Your task to perform on an android device: Search for sushi restaurants on Maps Image 0: 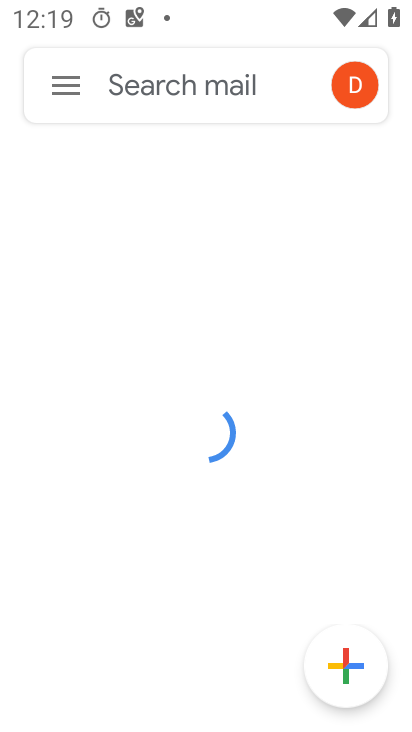
Step 0: press home button
Your task to perform on an android device: Search for sushi restaurants on Maps Image 1: 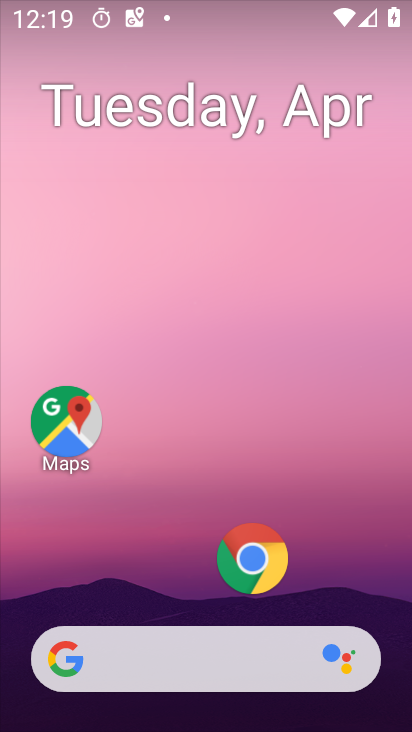
Step 1: drag from (151, 612) to (153, 149)
Your task to perform on an android device: Search for sushi restaurants on Maps Image 2: 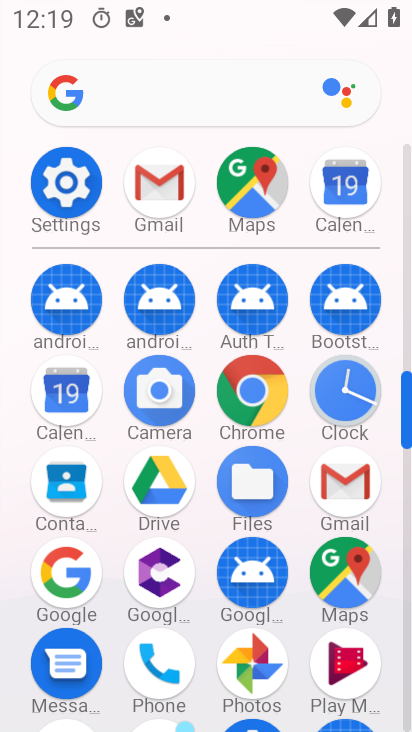
Step 2: drag from (198, 669) to (198, 318)
Your task to perform on an android device: Search for sushi restaurants on Maps Image 3: 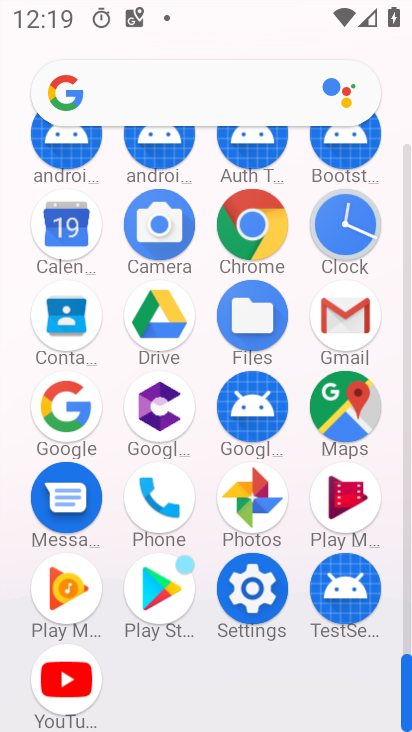
Step 3: click (333, 402)
Your task to perform on an android device: Search for sushi restaurants on Maps Image 4: 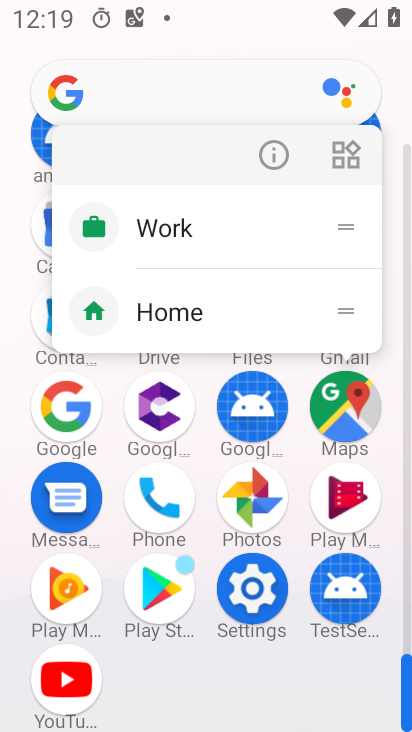
Step 4: click (356, 404)
Your task to perform on an android device: Search for sushi restaurants on Maps Image 5: 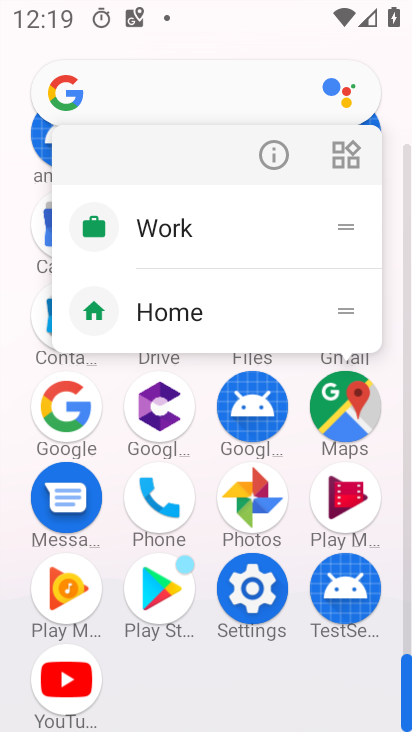
Step 5: click (197, 108)
Your task to perform on an android device: Search for sushi restaurants on Maps Image 6: 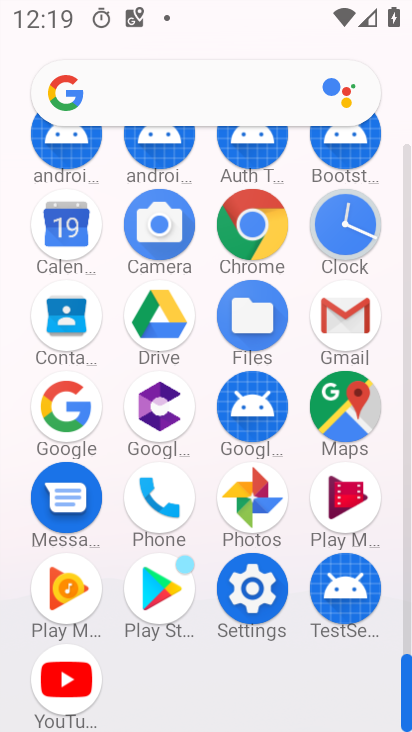
Step 6: click (346, 408)
Your task to perform on an android device: Search for sushi restaurants on Maps Image 7: 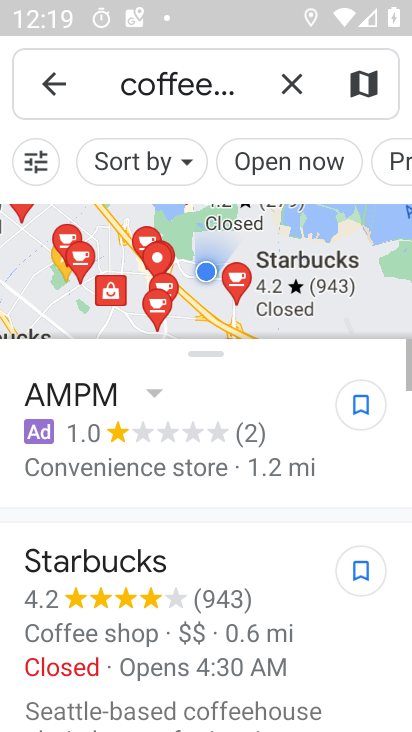
Step 7: click (226, 93)
Your task to perform on an android device: Search for sushi restaurants on Maps Image 8: 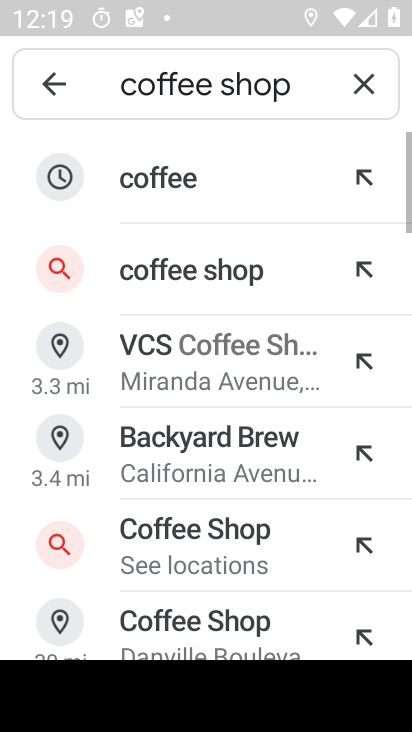
Step 8: click (371, 79)
Your task to perform on an android device: Search for sushi restaurants on Maps Image 9: 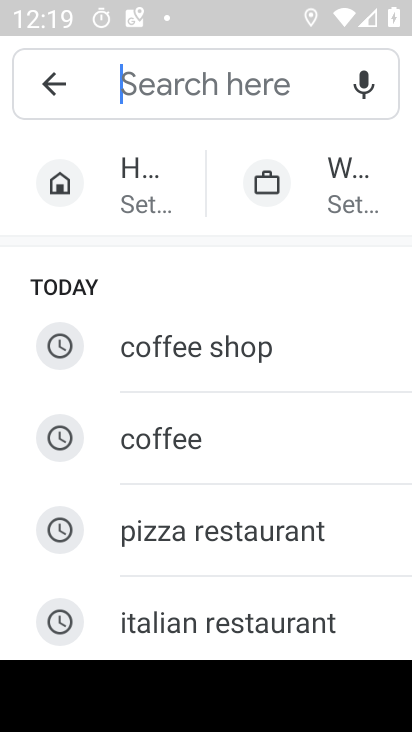
Step 9: type "sushi restaurants"
Your task to perform on an android device: Search for sushi restaurants on Maps Image 10: 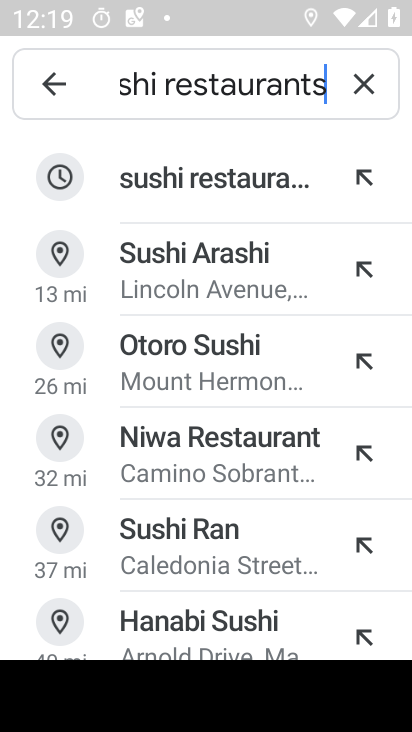
Step 10: click (233, 172)
Your task to perform on an android device: Search for sushi restaurants on Maps Image 11: 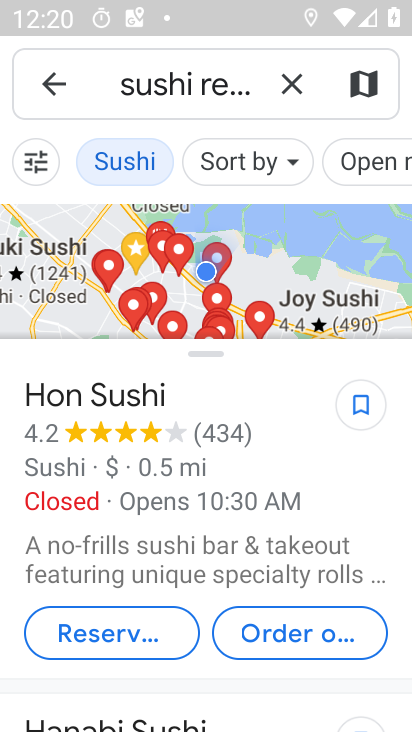
Step 11: task complete